Your task to perform on an android device: Open the calendar app, open the side menu, and click the "Day" option Image 0: 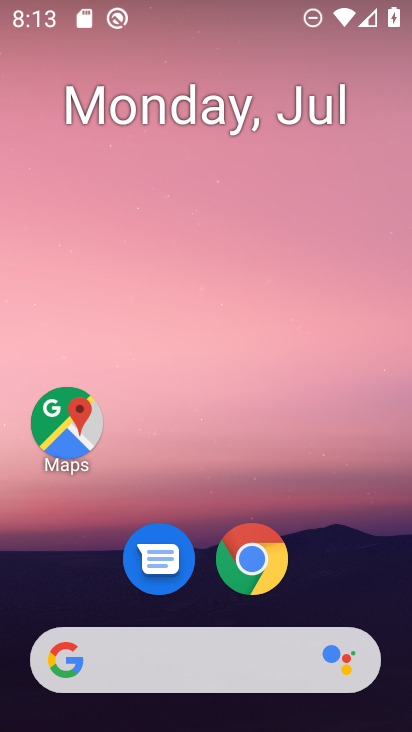
Step 0: drag from (111, 546) to (206, 7)
Your task to perform on an android device: Open the calendar app, open the side menu, and click the "Day" option Image 1: 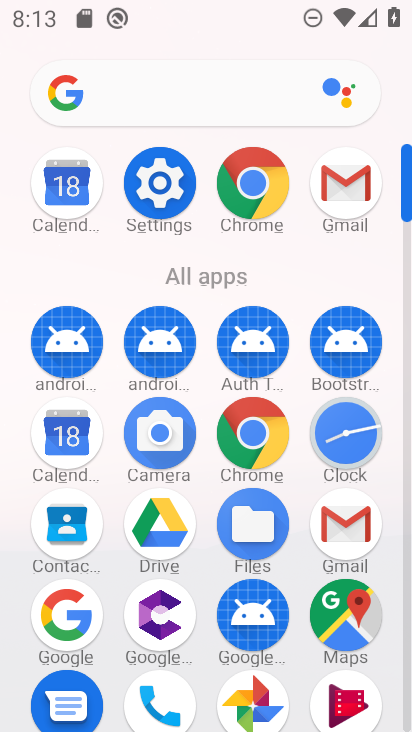
Step 1: click (60, 181)
Your task to perform on an android device: Open the calendar app, open the side menu, and click the "Day" option Image 2: 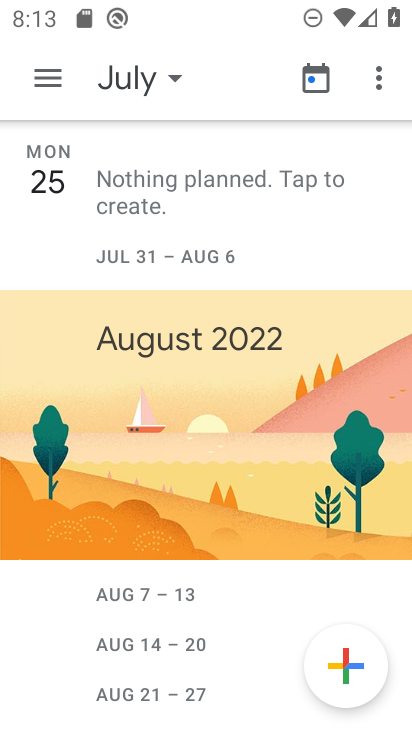
Step 2: click (56, 75)
Your task to perform on an android device: Open the calendar app, open the side menu, and click the "Day" option Image 3: 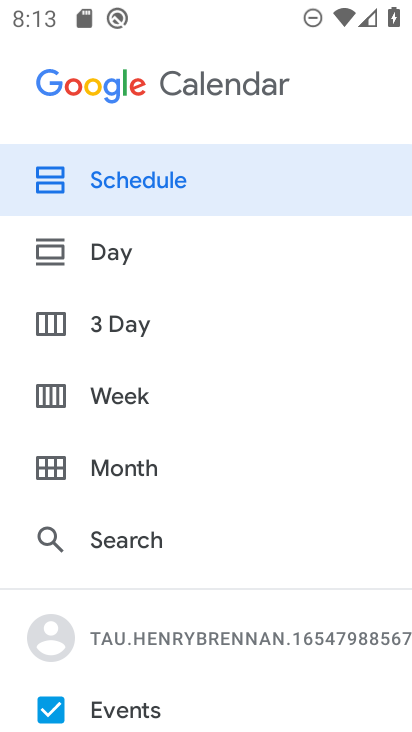
Step 3: click (106, 245)
Your task to perform on an android device: Open the calendar app, open the side menu, and click the "Day" option Image 4: 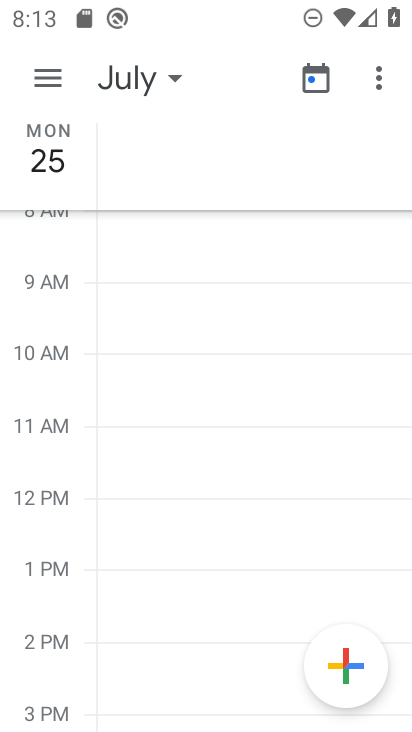
Step 4: task complete